Your task to perform on an android device: turn on wifi Image 0: 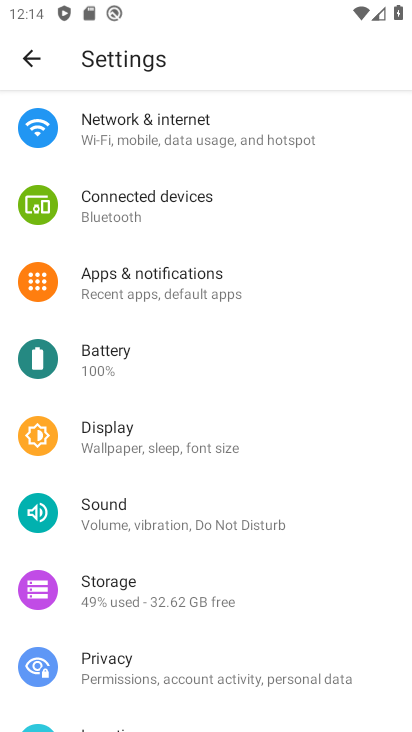
Step 0: press home button
Your task to perform on an android device: turn on wifi Image 1: 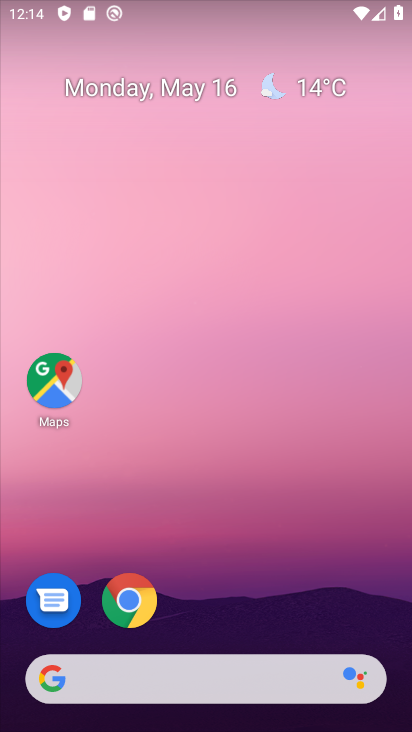
Step 1: task complete